Your task to perform on an android device: What's the news in Cambodia? Image 0: 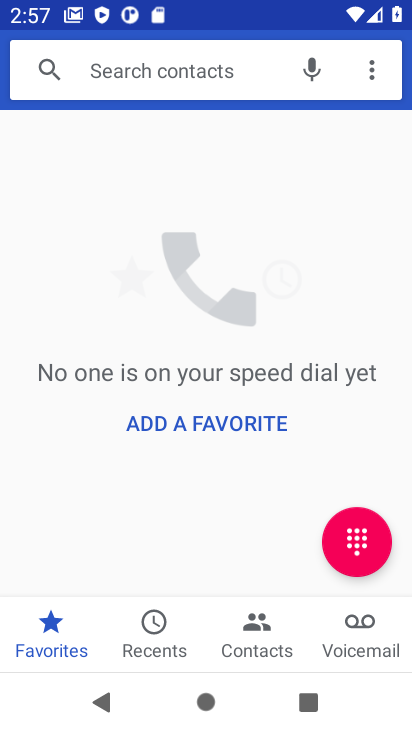
Step 0: press home button
Your task to perform on an android device: What's the news in Cambodia? Image 1: 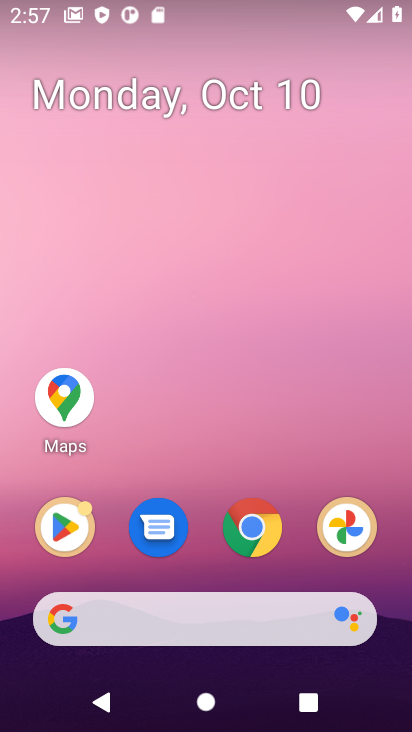
Step 1: click (251, 627)
Your task to perform on an android device: What's the news in Cambodia? Image 2: 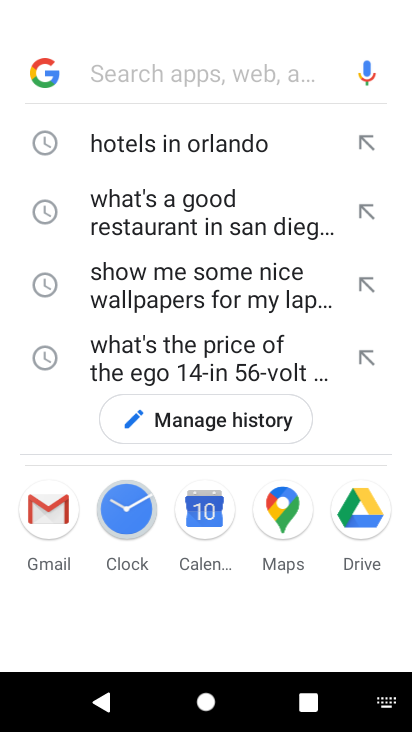
Step 2: type "What's the news in Cambodia"
Your task to perform on an android device: What's the news in Cambodia? Image 3: 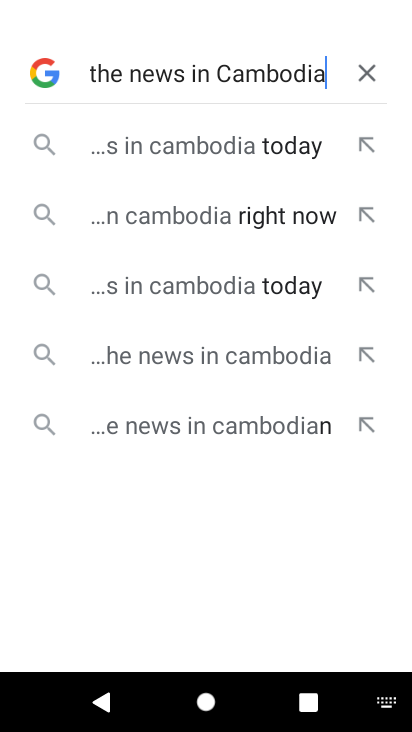
Step 3: press enter
Your task to perform on an android device: What's the news in Cambodia? Image 4: 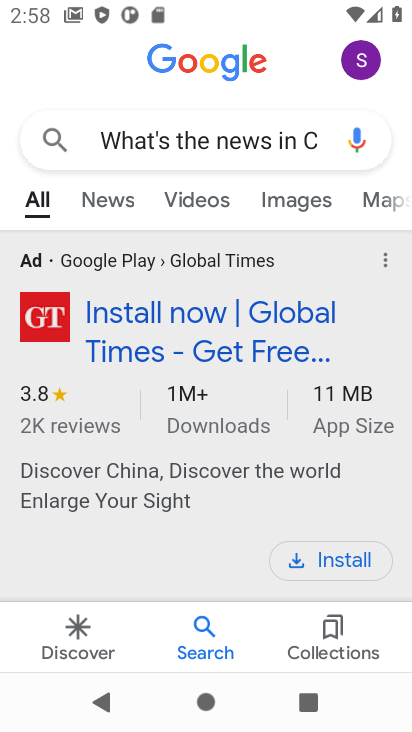
Step 4: drag from (279, 517) to (284, 306)
Your task to perform on an android device: What's the news in Cambodia? Image 5: 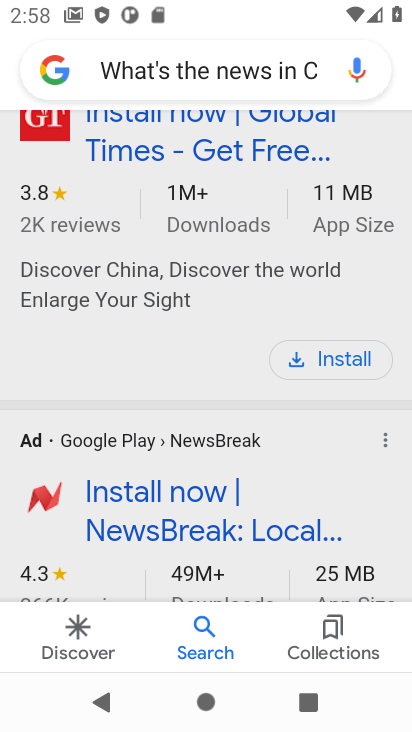
Step 5: drag from (290, 473) to (307, 280)
Your task to perform on an android device: What's the news in Cambodia? Image 6: 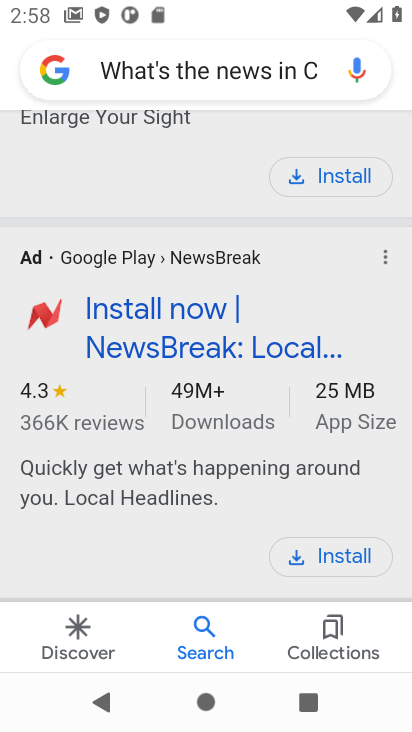
Step 6: drag from (255, 492) to (285, 309)
Your task to perform on an android device: What's the news in Cambodia? Image 7: 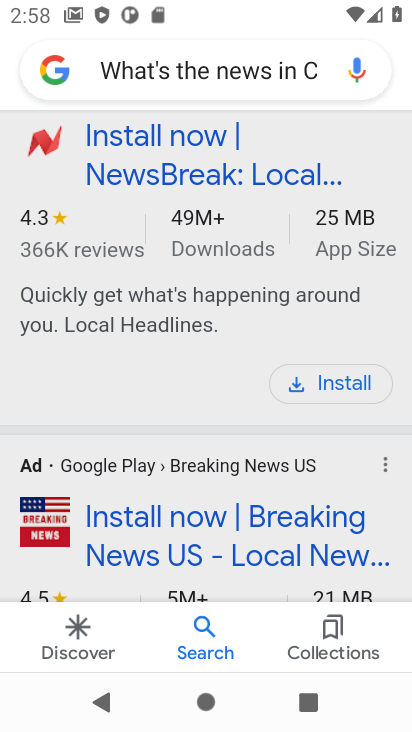
Step 7: drag from (276, 557) to (290, 316)
Your task to perform on an android device: What's the news in Cambodia? Image 8: 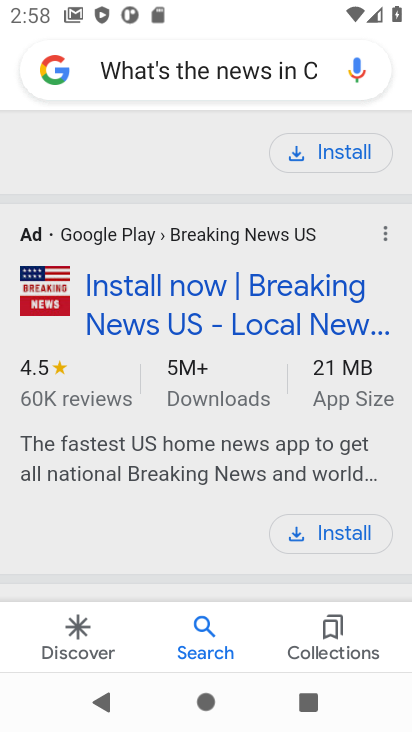
Step 8: drag from (224, 547) to (277, 281)
Your task to perform on an android device: What's the news in Cambodia? Image 9: 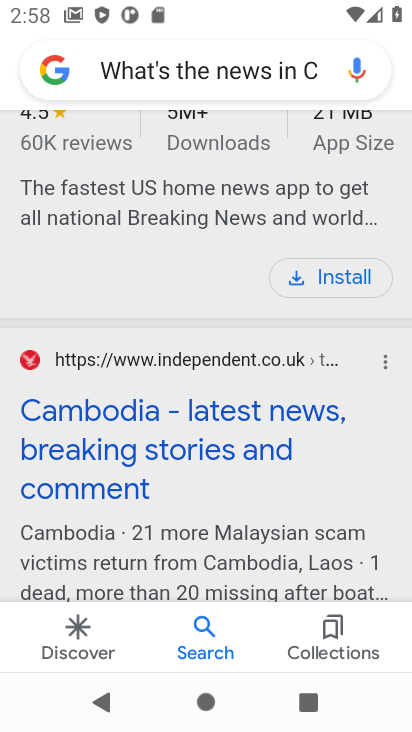
Step 9: click (208, 448)
Your task to perform on an android device: What's the news in Cambodia? Image 10: 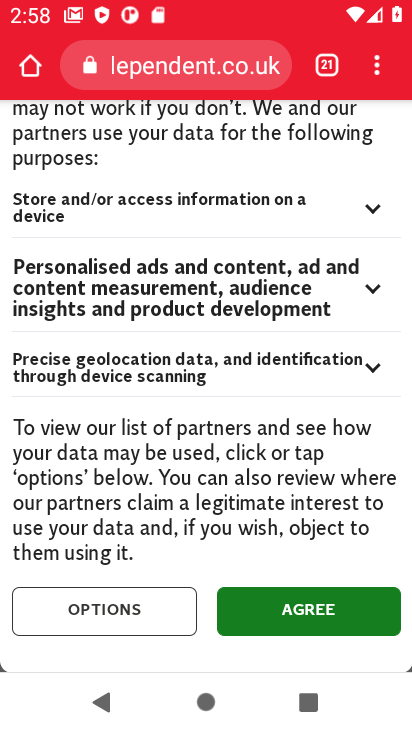
Step 10: click (294, 624)
Your task to perform on an android device: What's the news in Cambodia? Image 11: 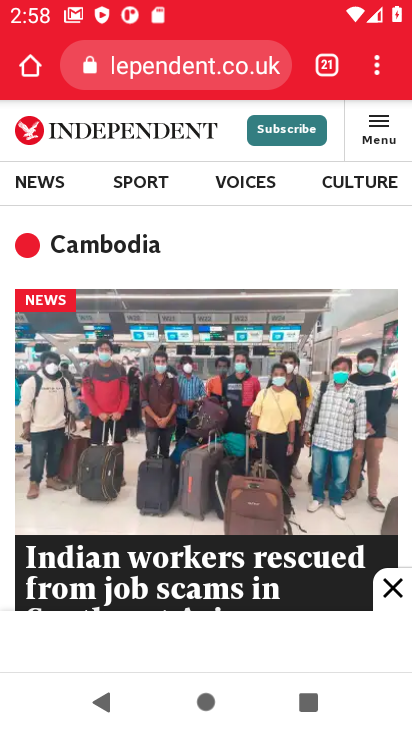
Step 11: task complete